Your task to perform on an android device: See recent photos Image 0: 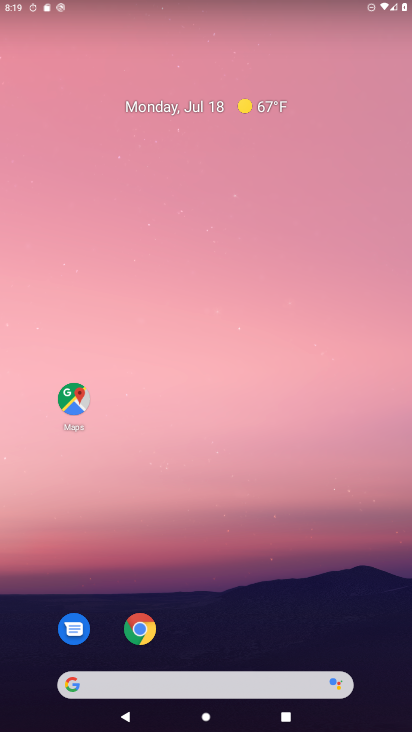
Step 0: drag from (215, 648) to (219, 57)
Your task to perform on an android device: See recent photos Image 1: 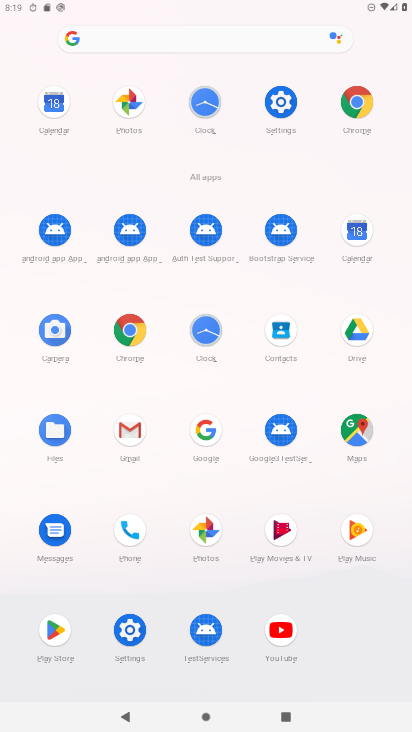
Step 1: click (207, 534)
Your task to perform on an android device: See recent photos Image 2: 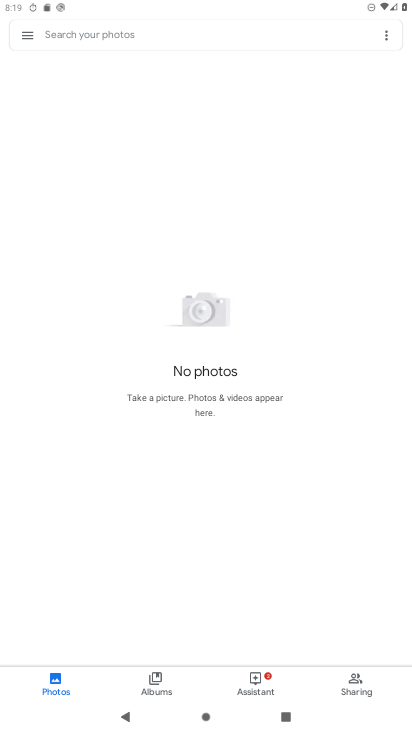
Step 2: drag from (143, 259) to (177, 609)
Your task to perform on an android device: See recent photos Image 3: 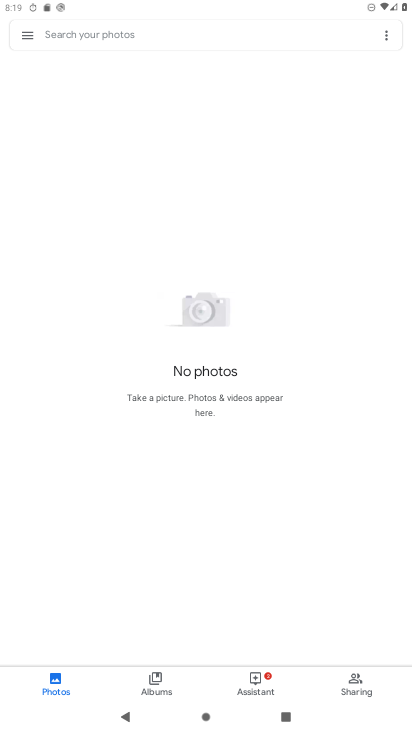
Step 3: click (202, 407)
Your task to perform on an android device: See recent photos Image 4: 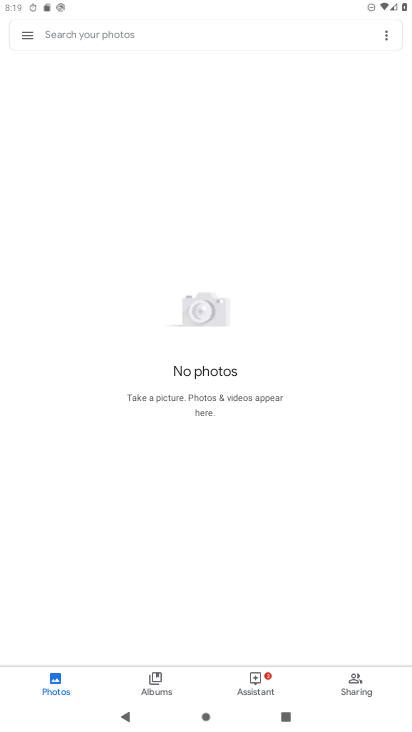
Step 4: task complete